Your task to perform on an android device: toggle priority inbox in the gmail app Image 0: 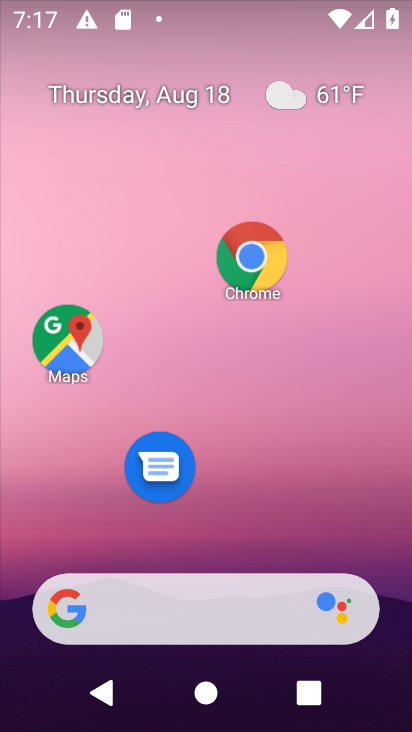
Step 0: type ""
Your task to perform on an android device: toggle priority inbox in the gmail app Image 1: 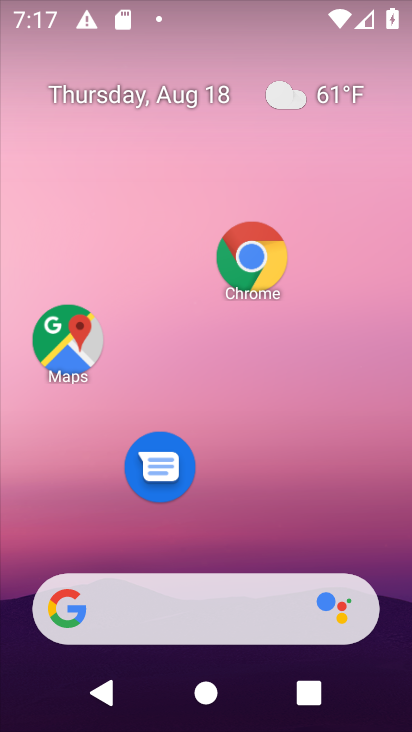
Step 1: press enter
Your task to perform on an android device: toggle priority inbox in the gmail app Image 2: 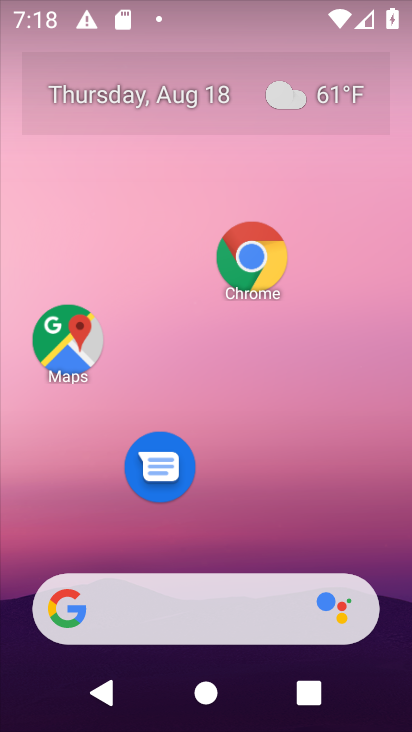
Step 2: press enter
Your task to perform on an android device: toggle priority inbox in the gmail app Image 3: 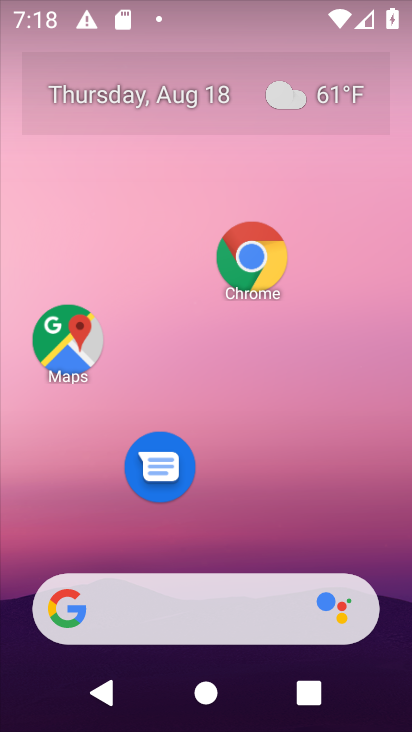
Step 3: task complete